Your task to perform on an android device: uninstall "eBay: The shopping marketplace" Image 0: 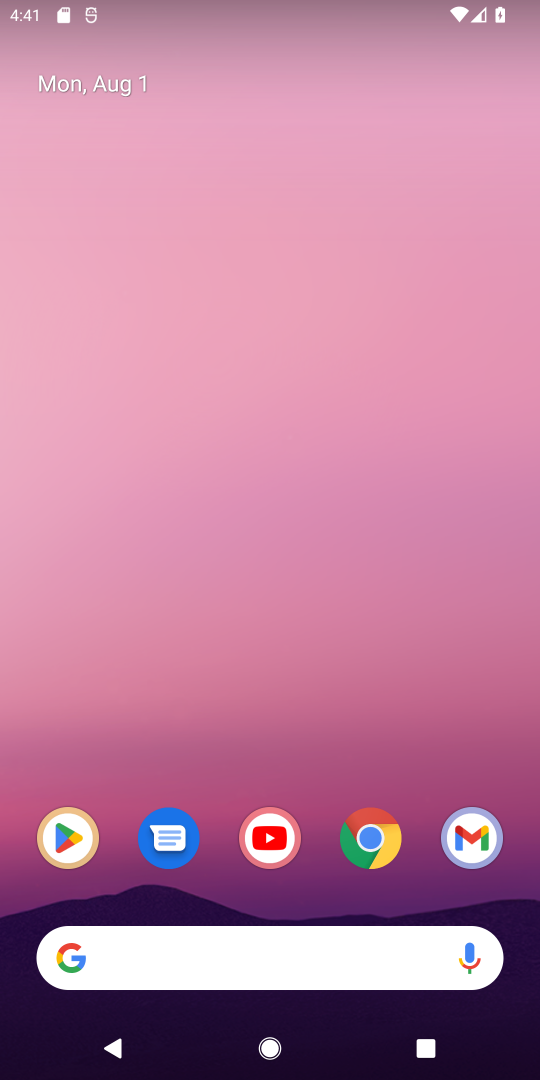
Step 0: click (57, 836)
Your task to perform on an android device: uninstall "eBay: The shopping marketplace" Image 1: 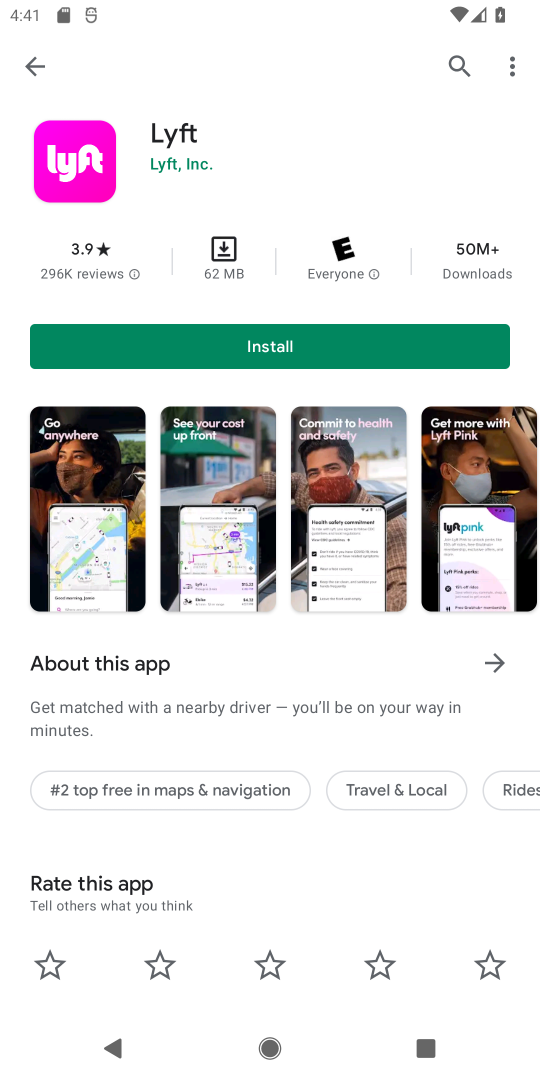
Step 1: task complete